Your task to perform on an android device: Go to eBay Image 0: 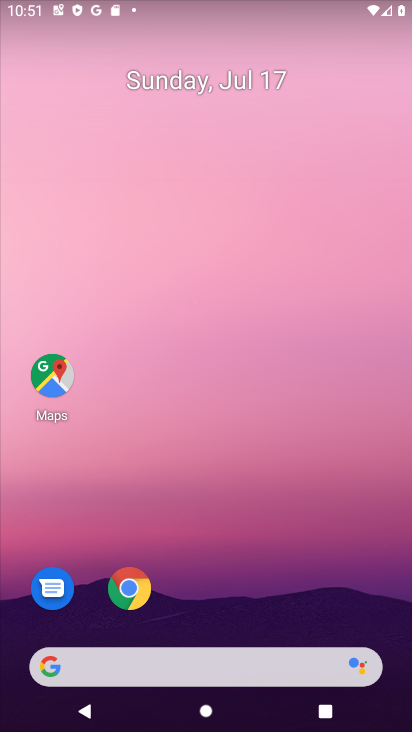
Step 0: click (131, 586)
Your task to perform on an android device: Go to eBay Image 1: 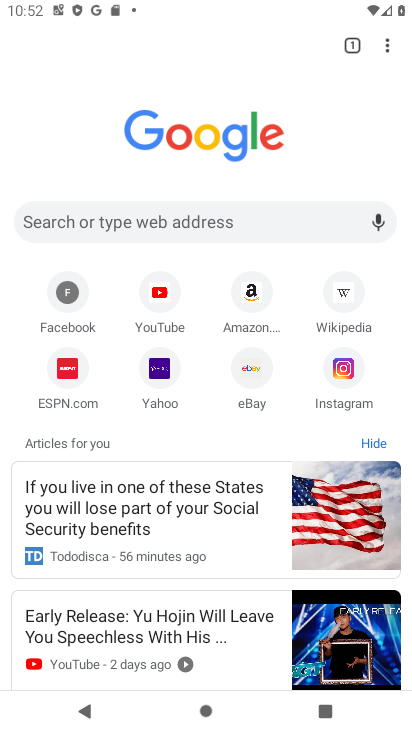
Step 1: click (249, 364)
Your task to perform on an android device: Go to eBay Image 2: 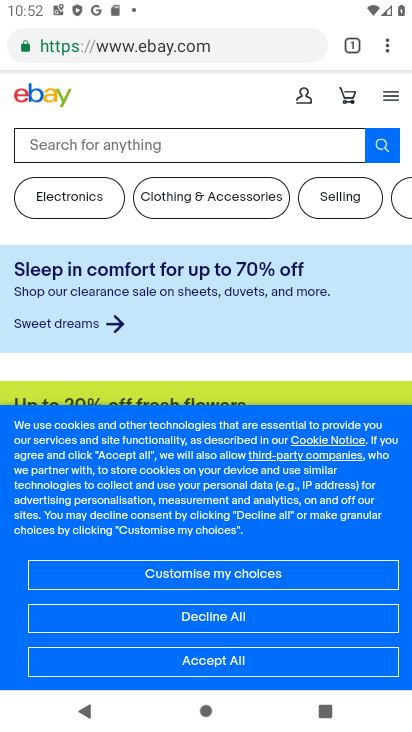
Step 2: click (221, 669)
Your task to perform on an android device: Go to eBay Image 3: 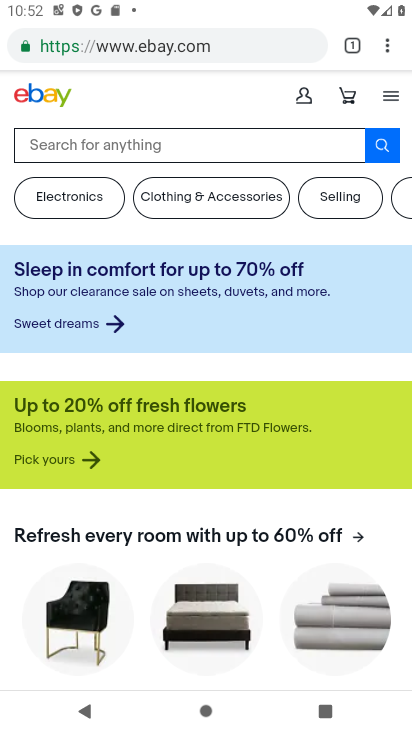
Step 3: task complete